Your task to perform on an android device: change the clock display to digital Image 0: 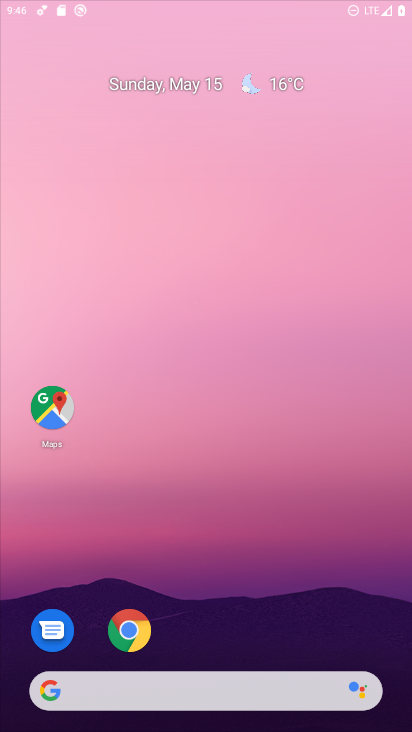
Step 0: click (344, 26)
Your task to perform on an android device: change the clock display to digital Image 1: 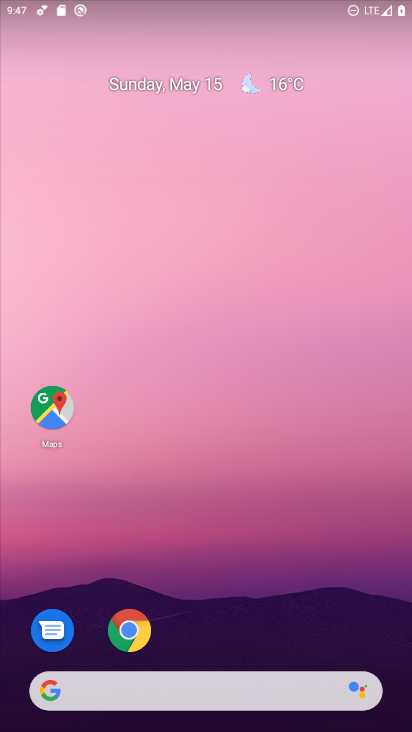
Step 1: drag from (179, 652) to (209, 0)
Your task to perform on an android device: change the clock display to digital Image 2: 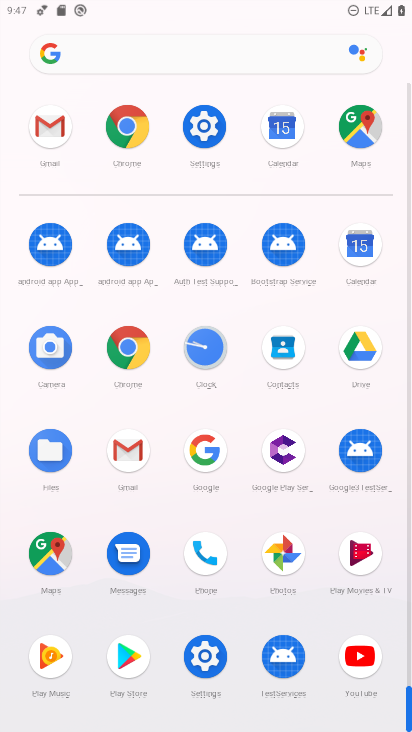
Step 2: click (199, 347)
Your task to perform on an android device: change the clock display to digital Image 3: 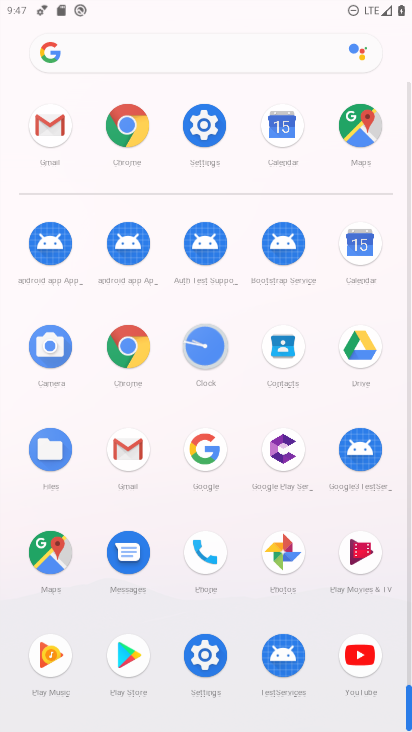
Step 3: click (195, 346)
Your task to perform on an android device: change the clock display to digital Image 4: 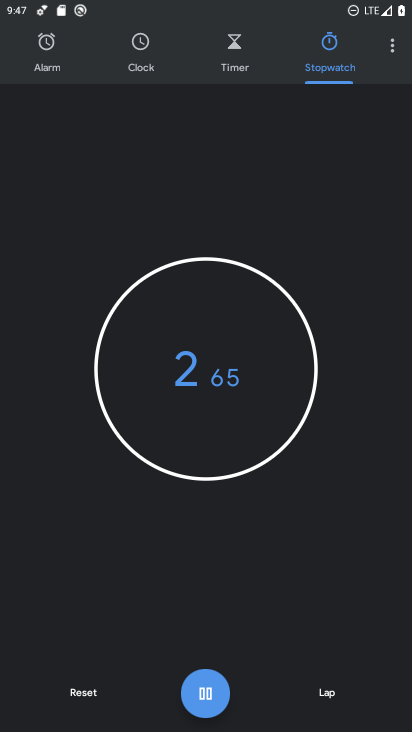
Step 4: click (396, 47)
Your task to perform on an android device: change the clock display to digital Image 5: 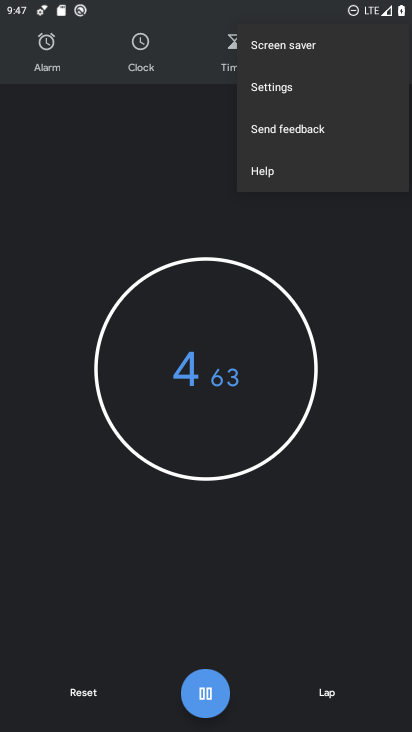
Step 5: click (323, 78)
Your task to perform on an android device: change the clock display to digital Image 6: 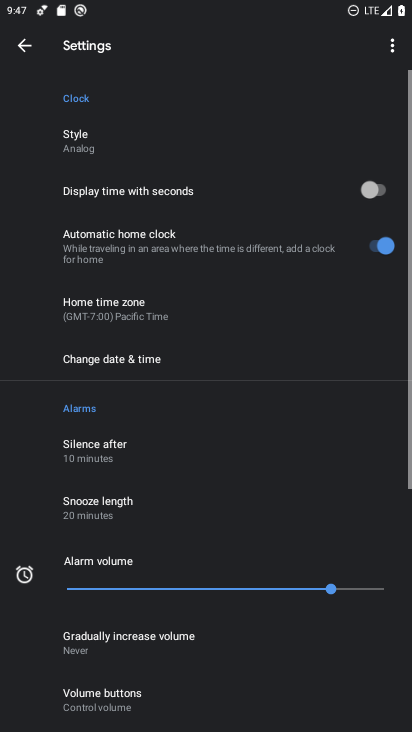
Step 6: click (74, 134)
Your task to perform on an android device: change the clock display to digital Image 7: 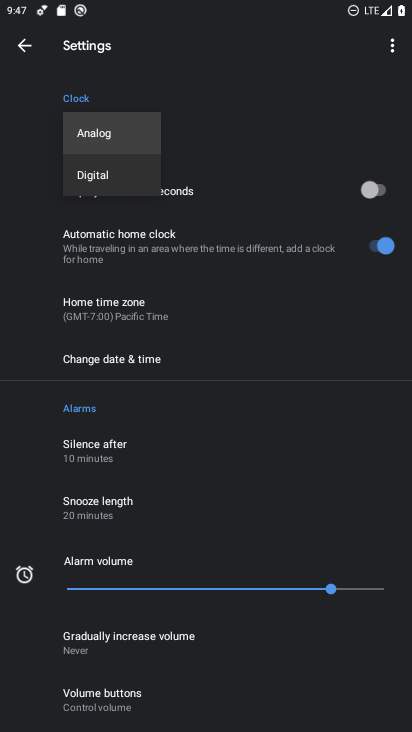
Step 7: click (88, 178)
Your task to perform on an android device: change the clock display to digital Image 8: 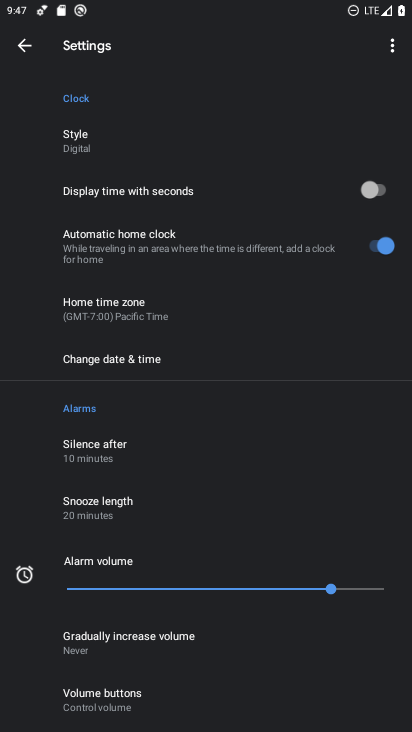
Step 8: task complete